Your task to perform on an android device: Go to accessibility settings Image 0: 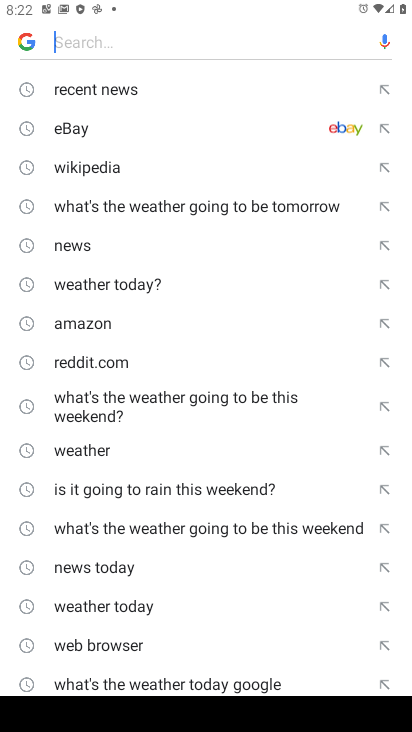
Step 0: press home button
Your task to perform on an android device: Go to accessibility settings Image 1: 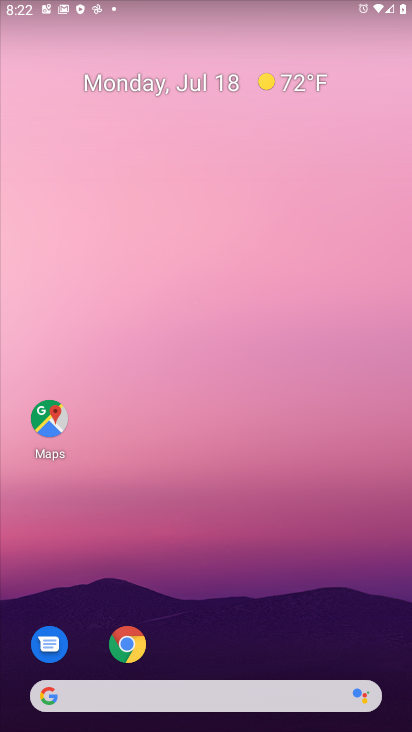
Step 1: drag from (352, 567) to (198, 59)
Your task to perform on an android device: Go to accessibility settings Image 2: 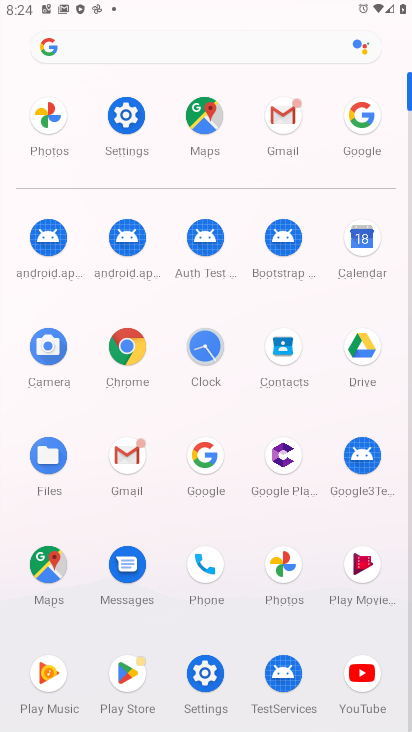
Step 2: click (197, 670)
Your task to perform on an android device: Go to accessibility settings Image 3: 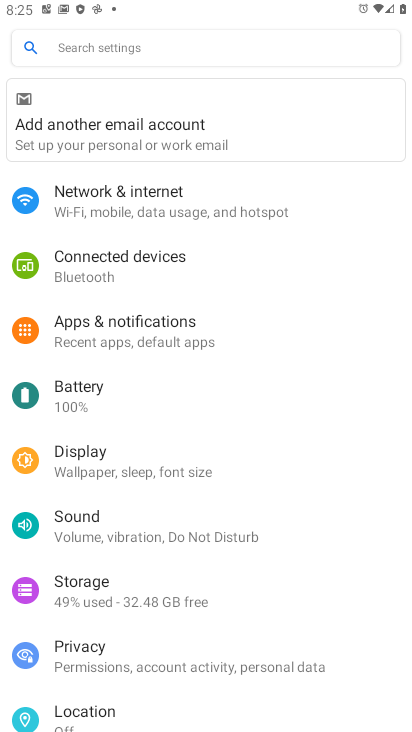
Step 3: drag from (170, 652) to (175, 82)
Your task to perform on an android device: Go to accessibility settings Image 4: 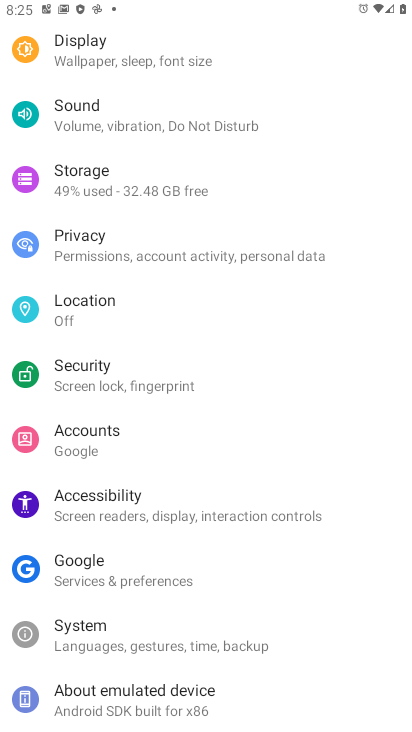
Step 4: click (125, 499)
Your task to perform on an android device: Go to accessibility settings Image 5: 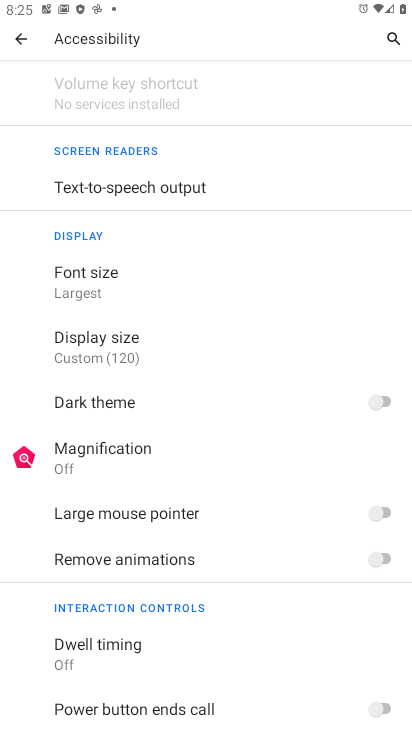
Step 5: task complete